Your task to perform on an android device: turn on the 24-hour format for clock Image 0: 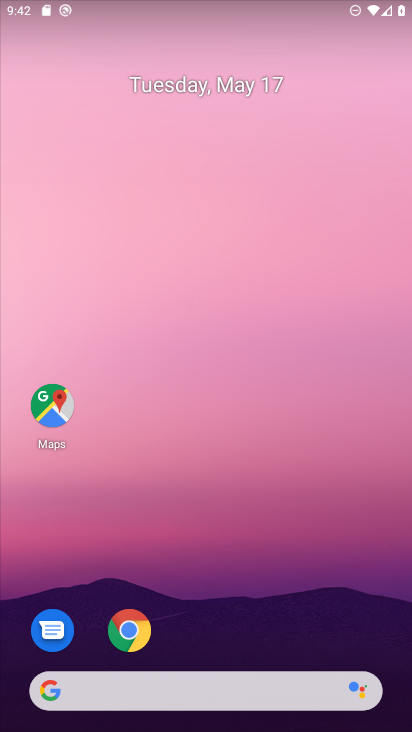
Step 0: drag from (373, 626) to (375, 186)
Your task to perform on an android device: turn on the 24-hour format for clock Image 1: 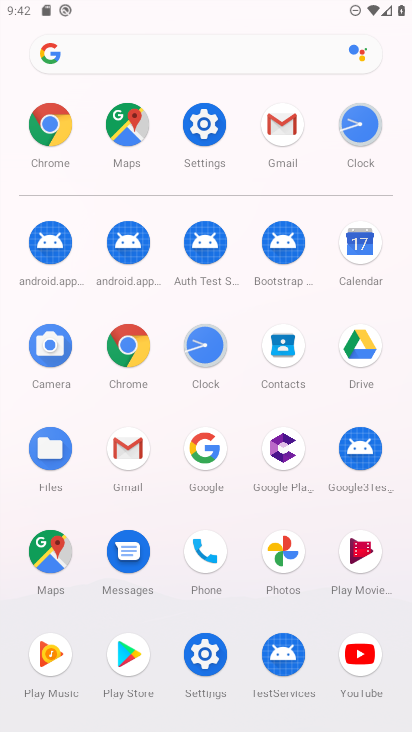
Step 1: click (204, 356)
Your task to perform on an android device: turn on the 24-hour format for clock Image 2: 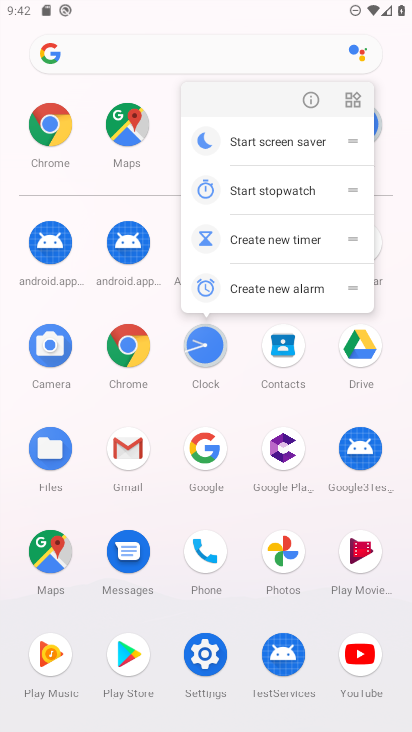
Step 2: click (202, 335)
Your task to perform on an android device: turn on the 24-hour format for clock Image 3: 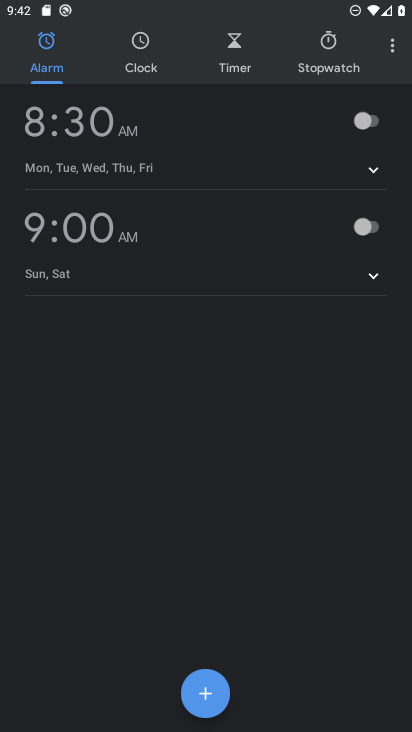
Step 3: click (396, 50)
Your task to perform on an android device: turn on the 24-hour format for clock Image 4: 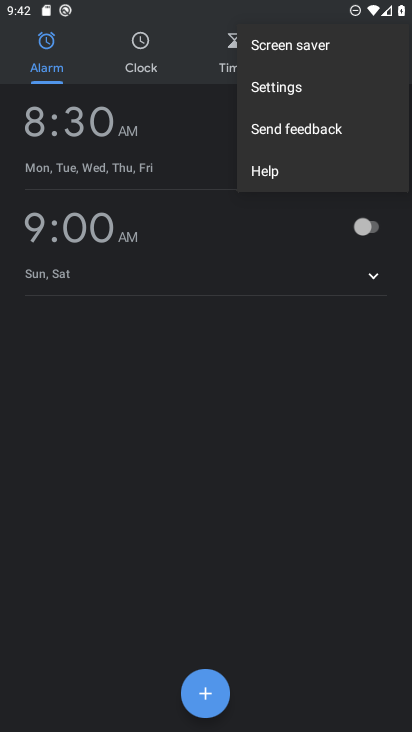
Step 4: click (310, 100)
Your task to perform on an android device: turn on the 24-hour format for clock Image 5: 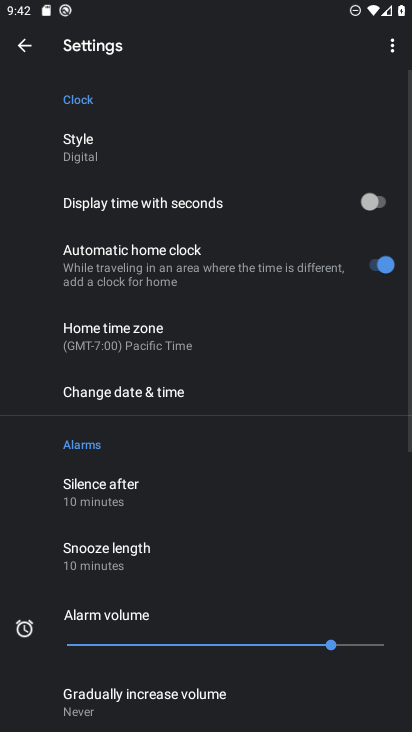
Step 5: drag from (308, 424) to (321, 353)
Your task to perform on an android device: turn on the 24-hour format for clock Image 6: 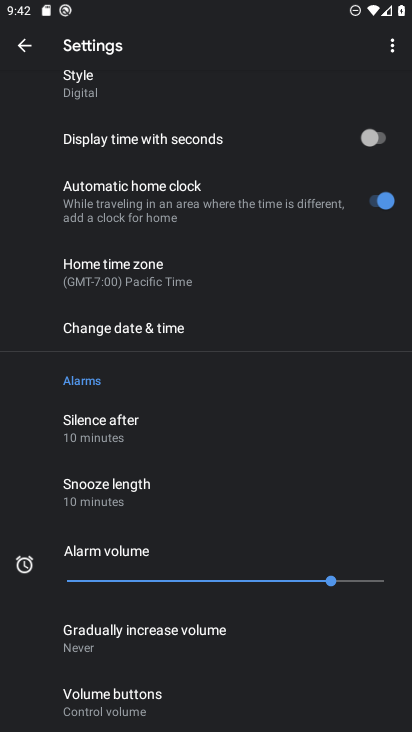
Step 6: drag from (321, 446) to (326, 363)
Your task to perform on an android device: turn on the 24-hour format for clock Image 7: 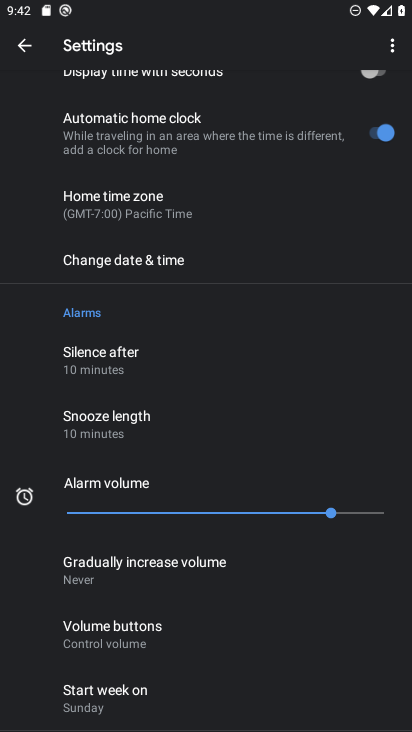
Step 7: drag from (309, 463) to (304, 381)
Your task to perform on an android device: turn on the 24-hour format for clock Image 8: 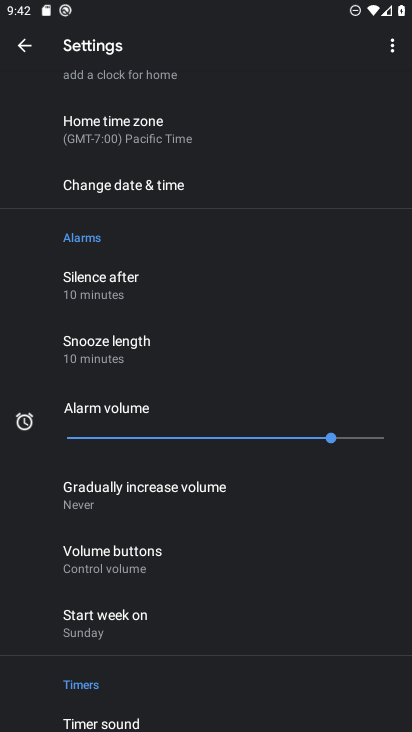
Step 8: drag from (290, 534) to (292, 432)
Your task to perform on an android device: turn on the 24-hour format for clock Image 9: 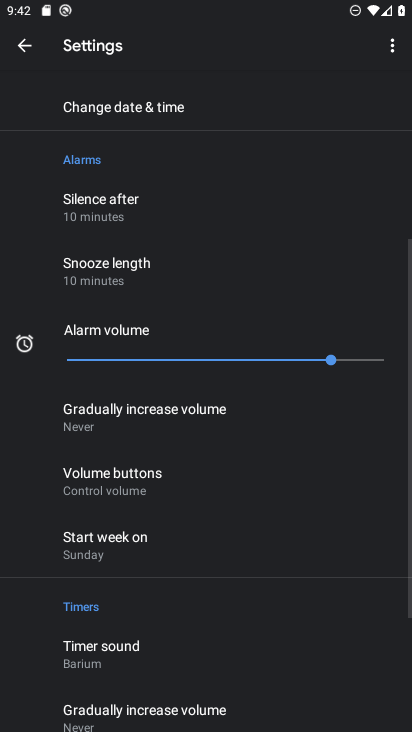
Step 9: drag from (282, 555) to (306, 467)
Your task to perform on an android device: turn on the 24-hour format for clock Image 10: 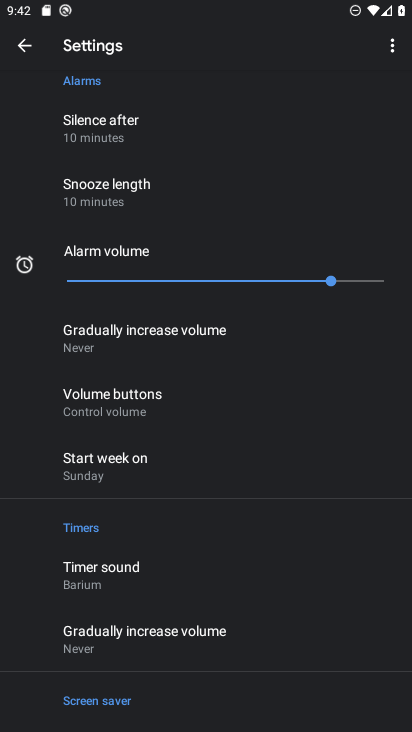
Step 10: drag from (330, 625) to (341, 540)
Your task to perform on an android device: turn on the 24-hour format for clock Image 11: 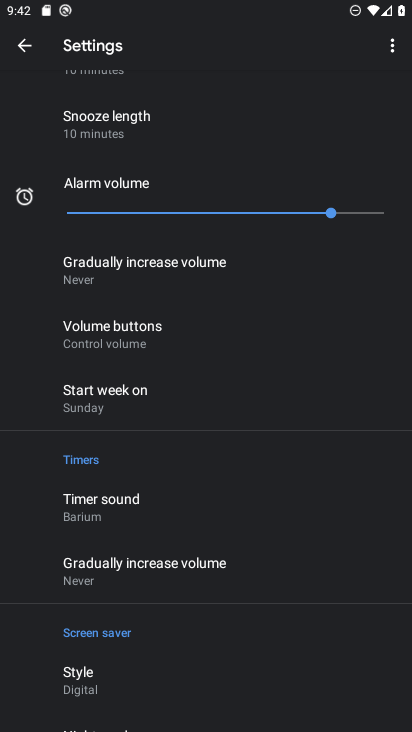
Step 11: drag from (327, 630) to (352, 533)
Your task to perform on an android device: turn on the 24-hour format for clock Image 12: 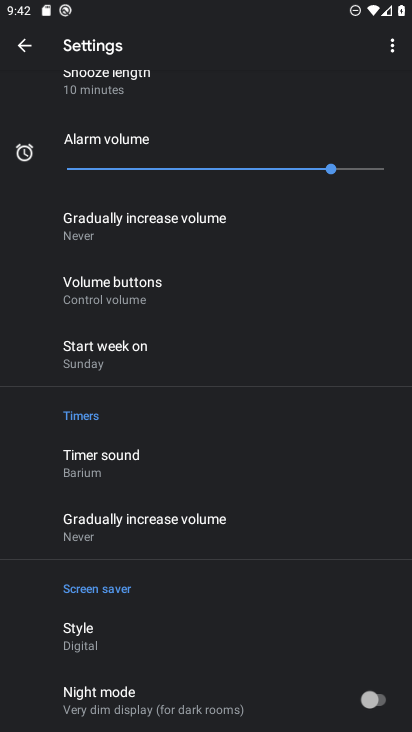
Step 12: drag from (327, 621) to (348, 473)
Your task to perform on an android device: turn on the 24-hour format for clock Image 13: 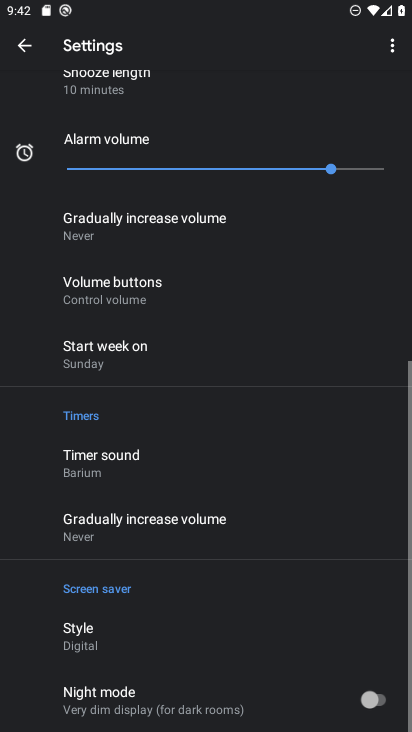
Step 13: drag from (354, 350) to (352, 450)
Your task to perform on an android device: turn on the 24-hour format for clock Image 14: 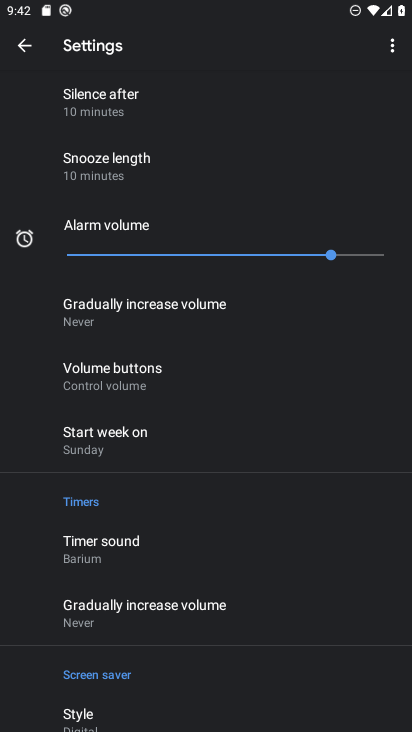
Step 14: drag from (358, 316) to (348, 417)
Your task to perform on an android device: turn on the 24-hour format for clock Image 15: 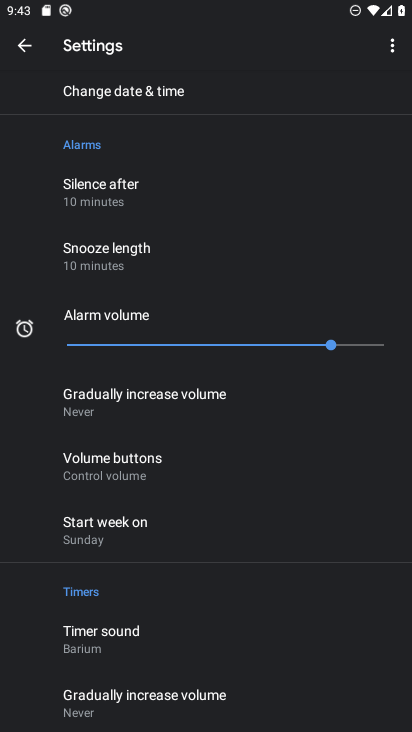
Step 15: drag from (339, 263) to (328, 396)
Your task to perform on an android device: turn on the 24-hour format for clock Image 16: 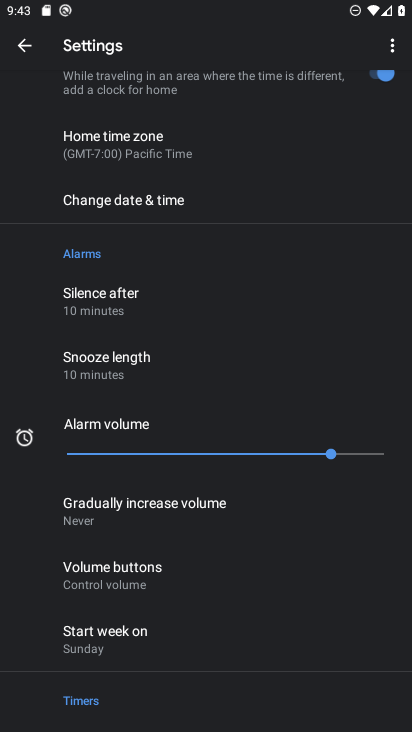
Step 16: drag from (337, 286) to (336, 390)
Your task to perform on an android device: turn on the 24-hour format for clock Image 17: 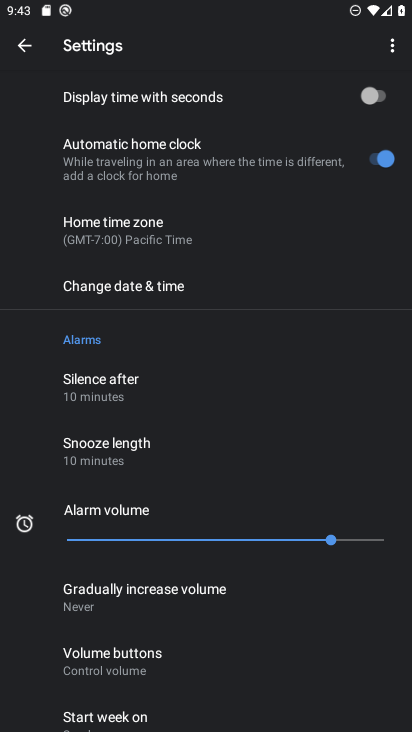
Step 17: drag from (323, 256) to (308, 344)
Your task to perform on an android device: turn on the 24-hour format for clock Image 18: 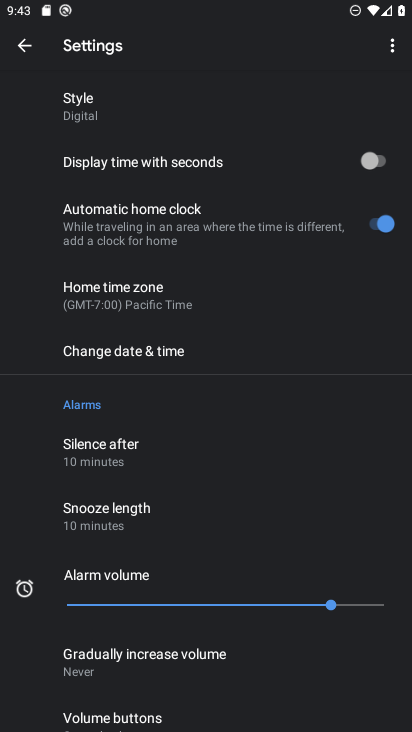
Step 18: drag from (312, 198) to (316, 296)
Your task to perform on an android device: turn on the 24-hour format for clock Image 19: 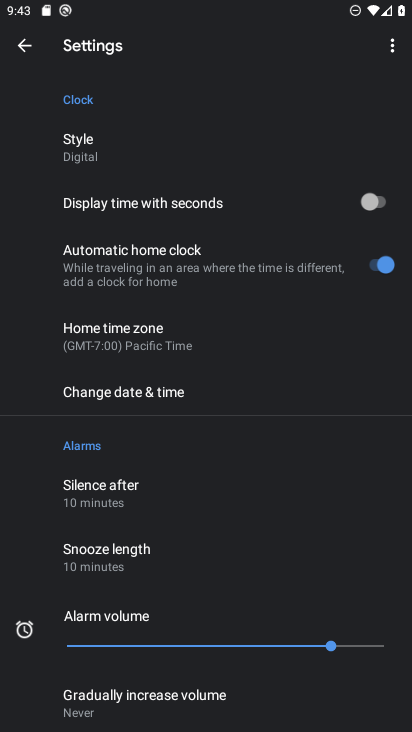
Step 19: drag from (306, 195) to (309, 288)
Your task to perform on an android device: turn on the 24-hour format for clock Image 20: 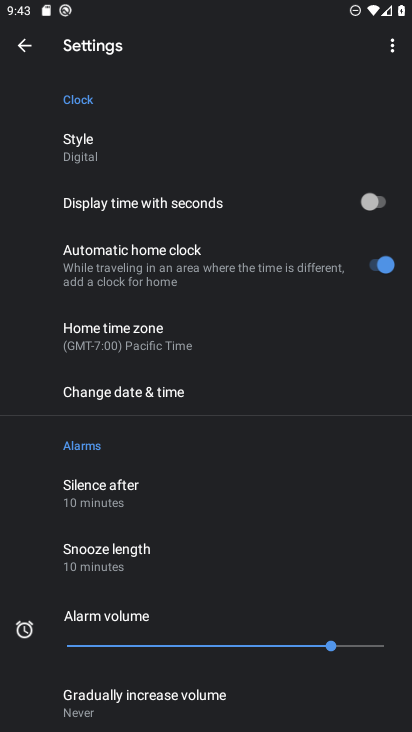
Step 20: click (220, 407)
Your task to perform on an android device: turn on the 24-hour format for clock Image 21: 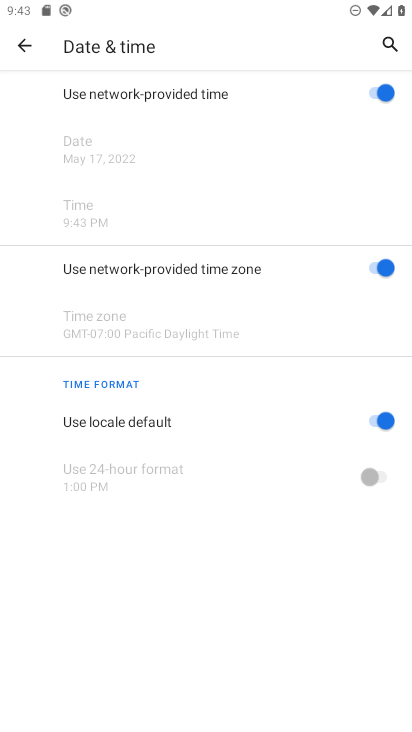
Step 21: click (372, 420)
Your task to perform on an android device: turn on the 24-hour format for clock Image 22: 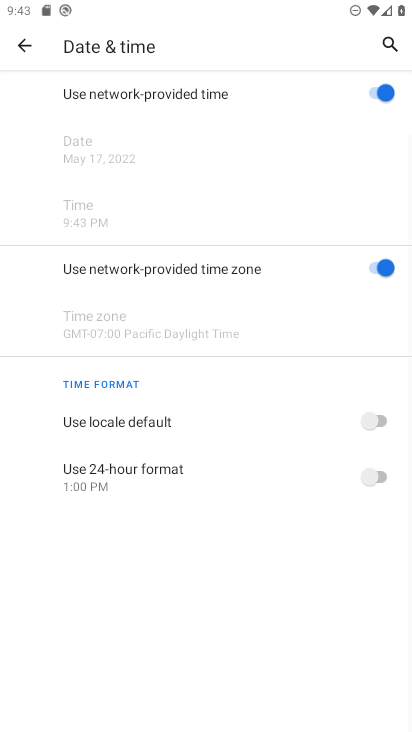
Step 22: click (379, 478)
Your task to perform on an android device: turn on the 24-hour format for clock Image 23: 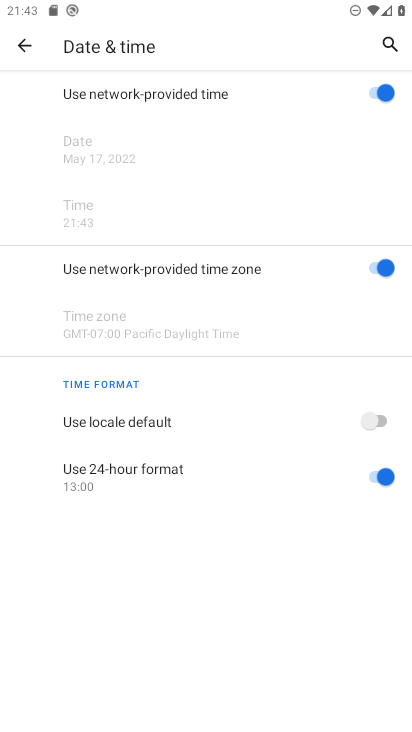
Step 23: task complete